Your task to perform on an android device: Open Youtube and go to the subscriptions tab Image 0: 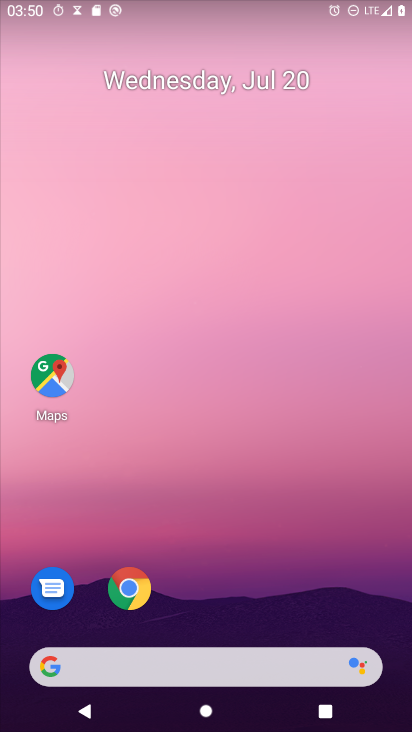
Step 0: drag from (239, 608) to (243, 24)
Your task to perform on an android device: Open Youtube and go to the subscriptions tab Image 1: 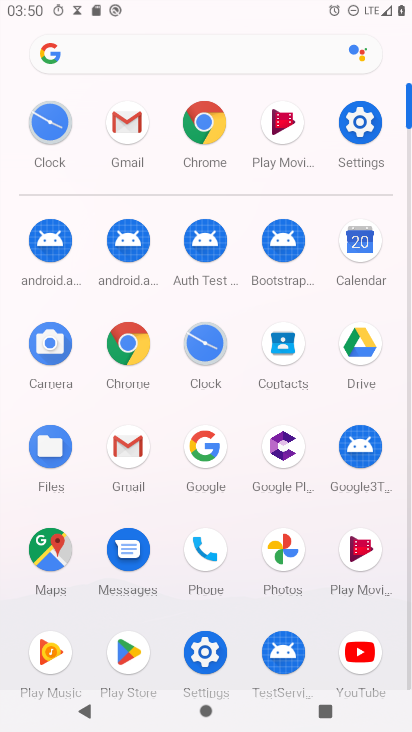
Step 1: click (349, 643)
Your task to perform on an android device: Open Youtube and go to the subscriptions tab Image 2: 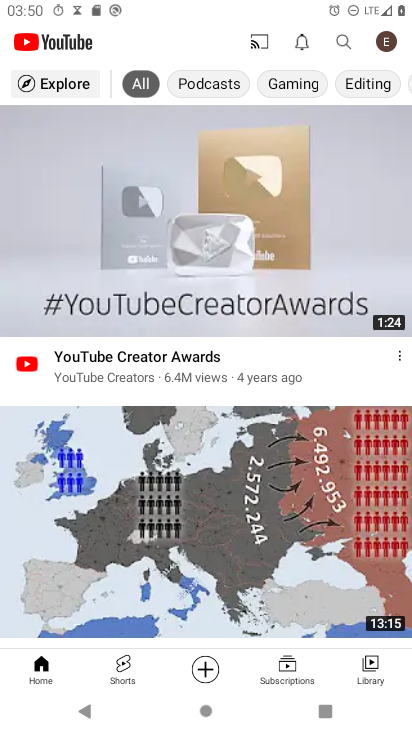
Step 2: click (275, 663)
Your task to perform on an android device: Open Youtube and go to the subscriptions tab Image 3: 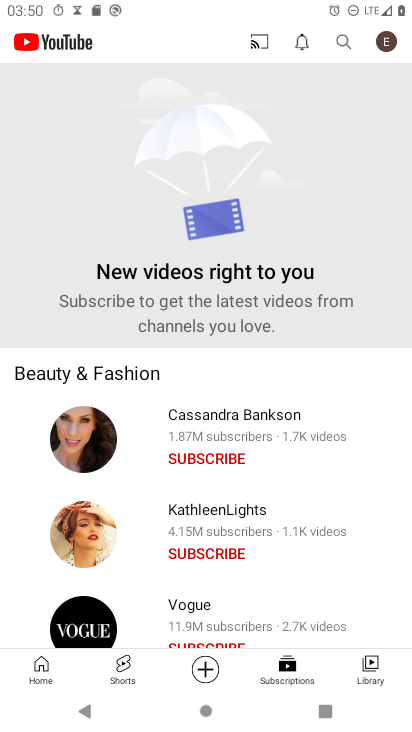
Step 3: task complete